Your task to perform on an android device: toggle priority inbox in the gmail app Image 0: 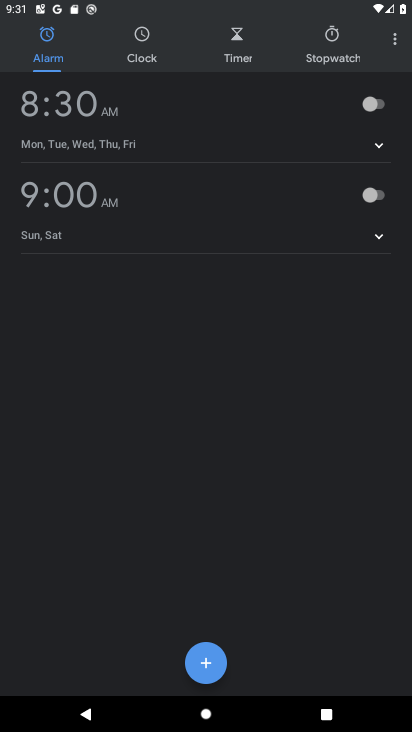
Step 0: press home button
Your task to perform on an android device: toggle priority inbox in the gmail app Image 1: 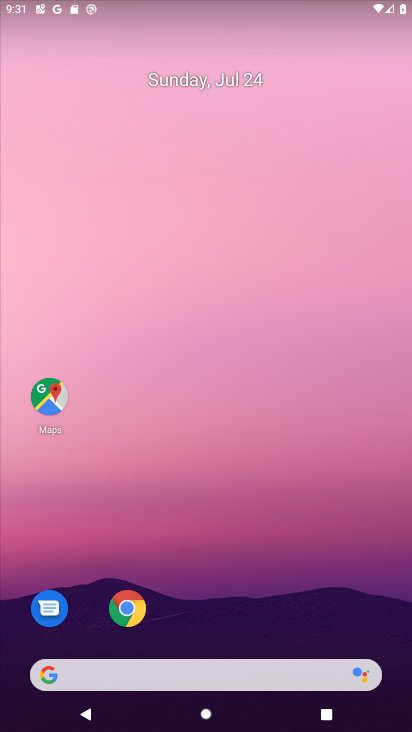
Step 1: drag from (214, 583) to (173, 172)
Your task to perform on an android device: toggle priority inbox in the gmail app Image 2: 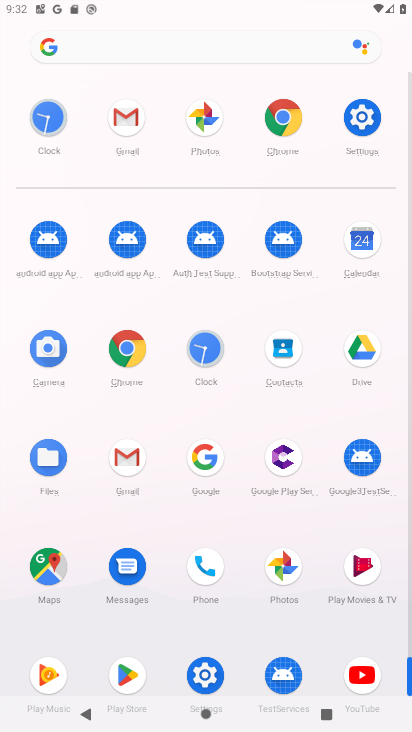
Step 2: click (124, 129)
Your task to perform on an android device: toggle priority inbox in the gmail app Image 3: 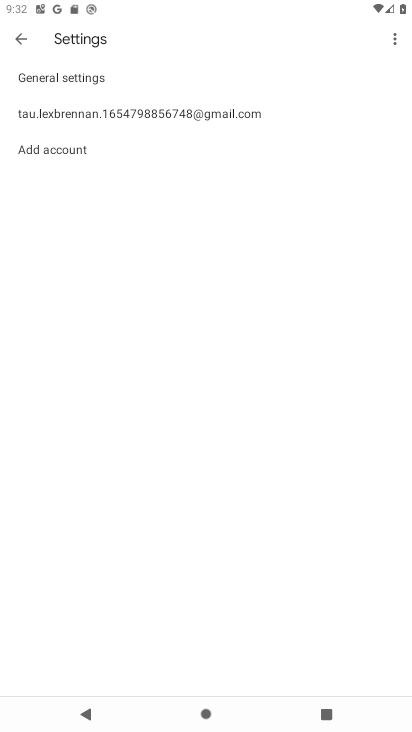
Step 3: click (24, 35)
Your task to perform on an android device: toggle priority inbox in the gmail app Image 4: 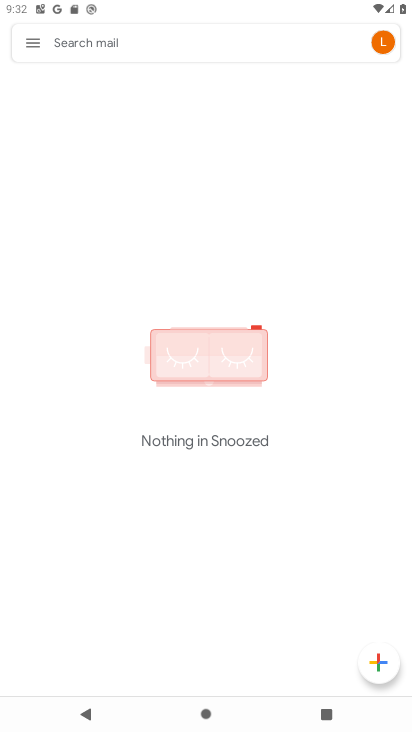
Step 4: click (24, 35)
Your task to perform on an android device: toggle priority inbox in the gmail app Image 5: 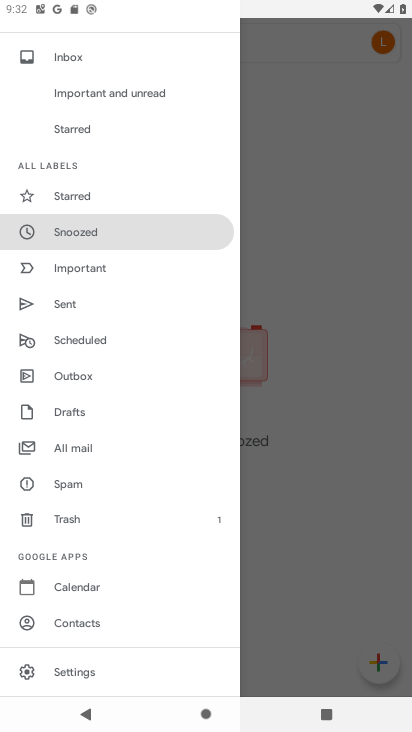
Step 5: click (149, 660)
Your task to perform on an android device: toggle priority inbox in the gmail app Image 6: 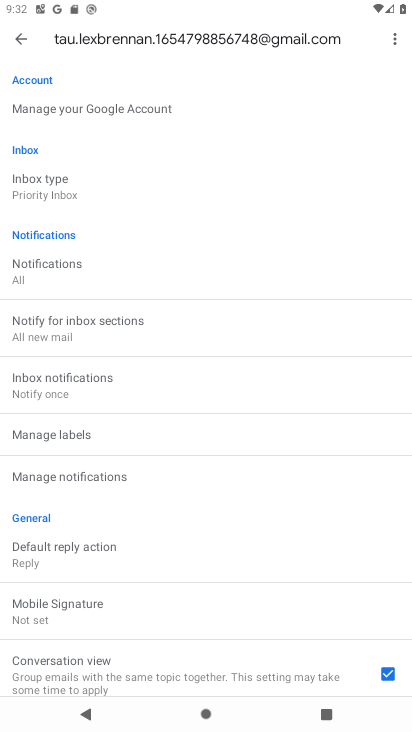
Step 6: click (84, 197)
Your task to perform on an android device: toggle priority inbox in the gmail app Image 7: 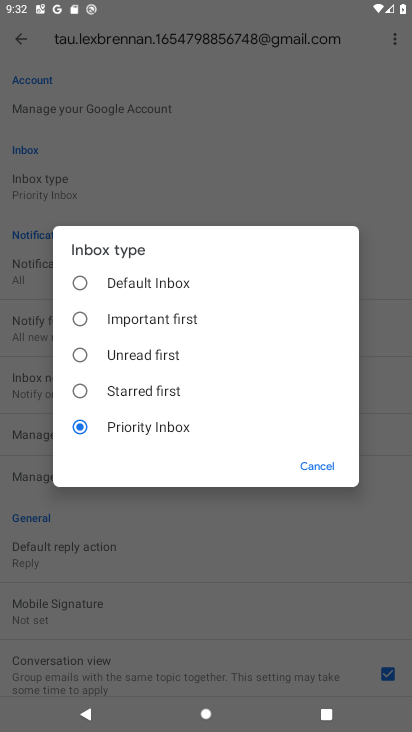
Step 7: task complete